Your task to perform on an android device: turn off translation in the chrome app Image 0: 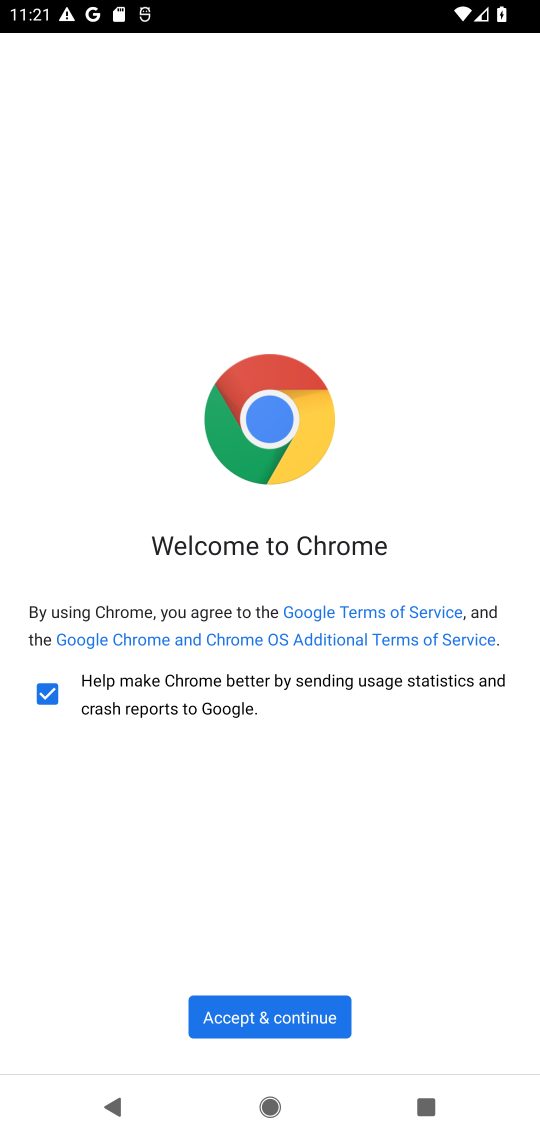
Step 0: click (272, 1006)
Your task to perform on an android device: turn off translation in the chrome app Image 1: 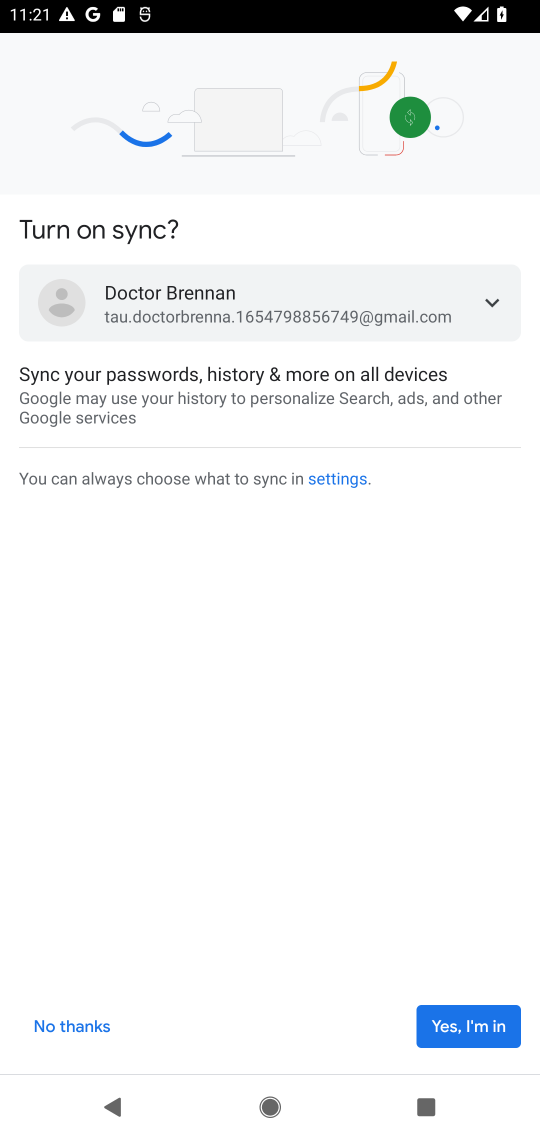
Step 1: press home button
Your task to perform on an android device: turn off translation in the chrome app Image 2: 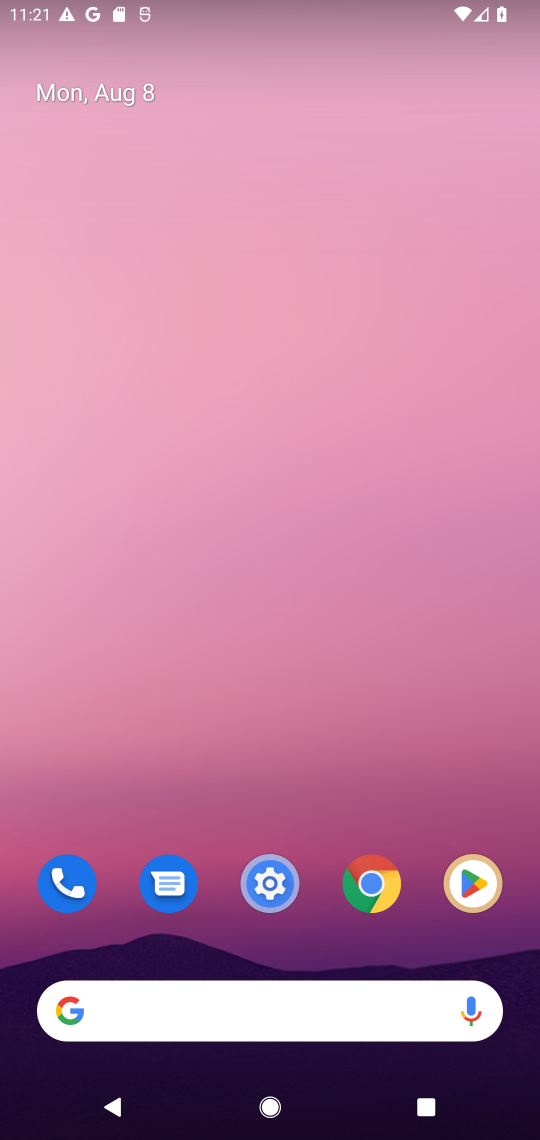
Step 2: click (360, 876)
Your task to perform on an android device: turn off translation in the chrome app Image 3: 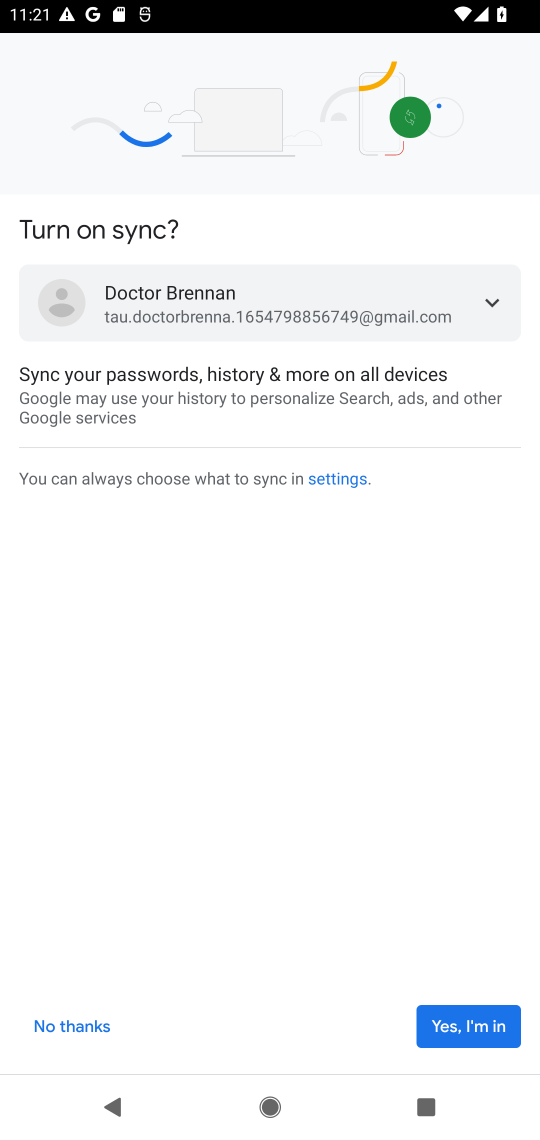
Step 3: click (480, 1031)
Your task to perform on an android device: turn off translation in the chrome app Image 4: 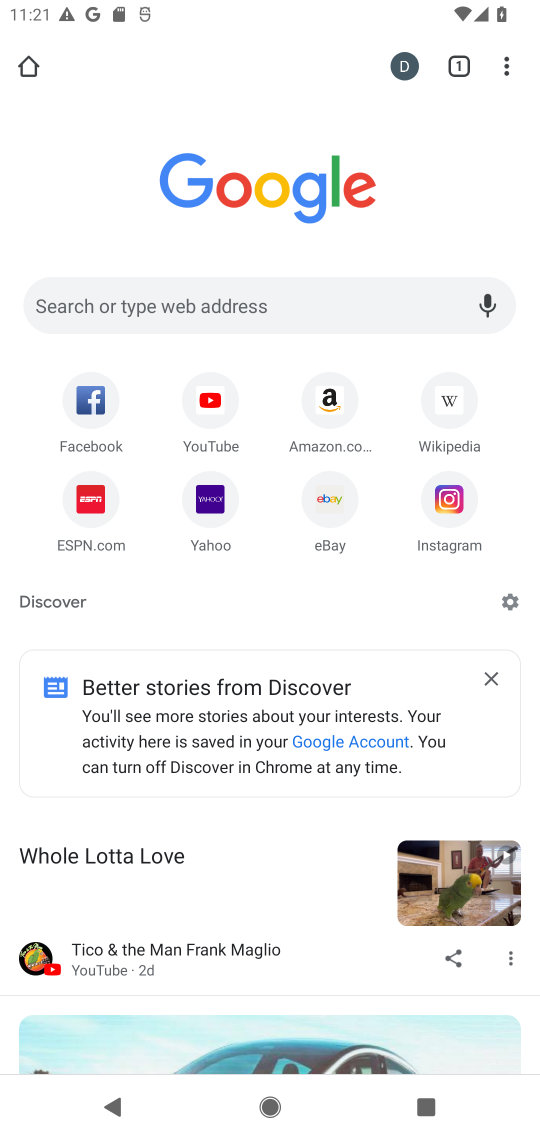
Step 4: click (515, 64)
Your task to perform on an android device: turn off translation in the chrome app Image 5: 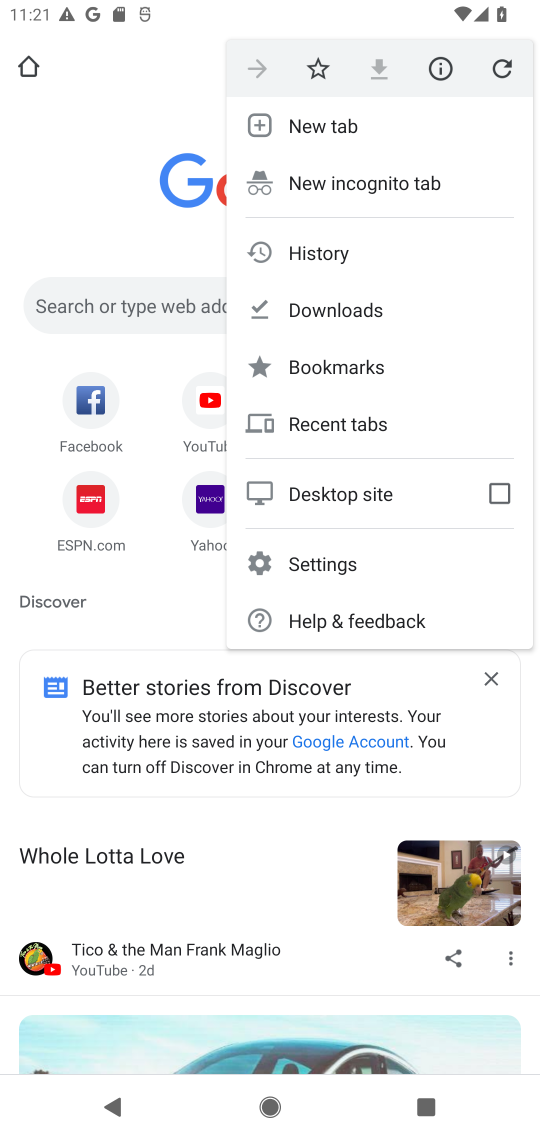
Step 5: click (363, 565)
Your task to perform on an android device: turn off translation in the chrome app Image 6: 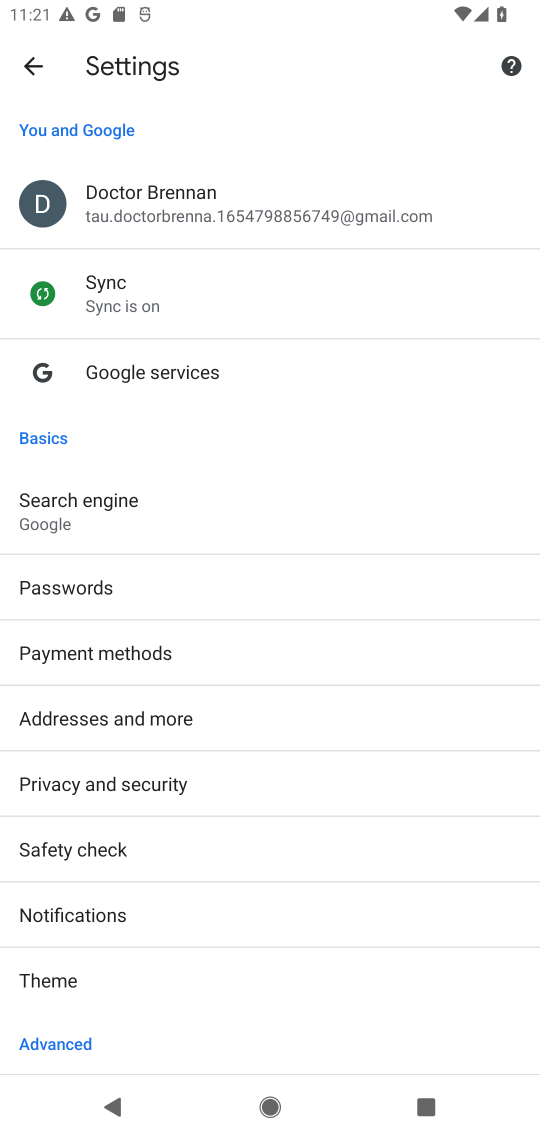
Step 6: drag from (160, 956) to (212, 166)
Your task to perform on an android device: turn off translation in the chrome app Image 7: 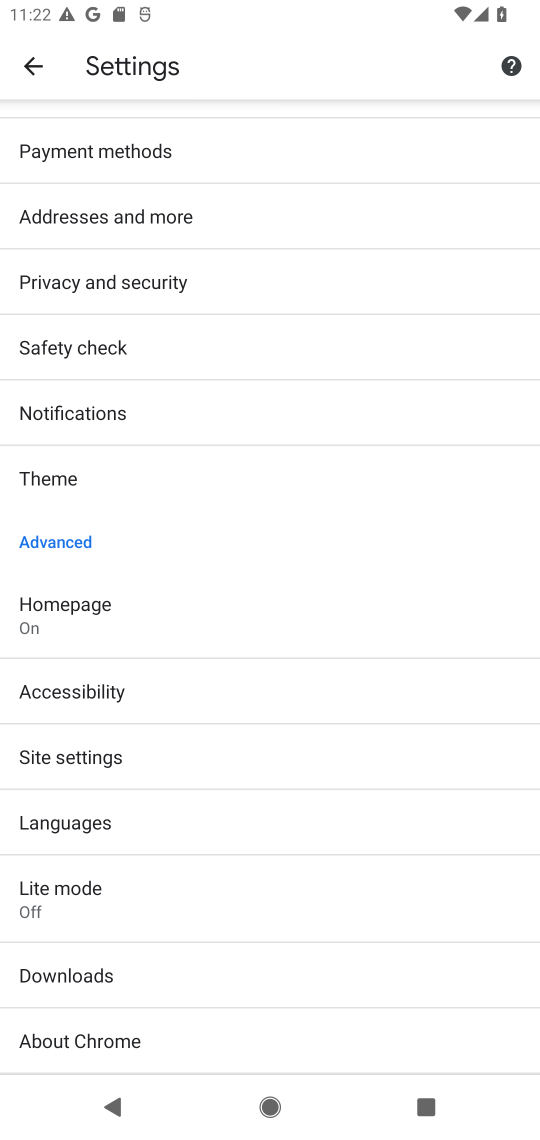
Step 7: click (107, 831)
Your task to perform on an android device: turn off translation in the chrome app Image 8: 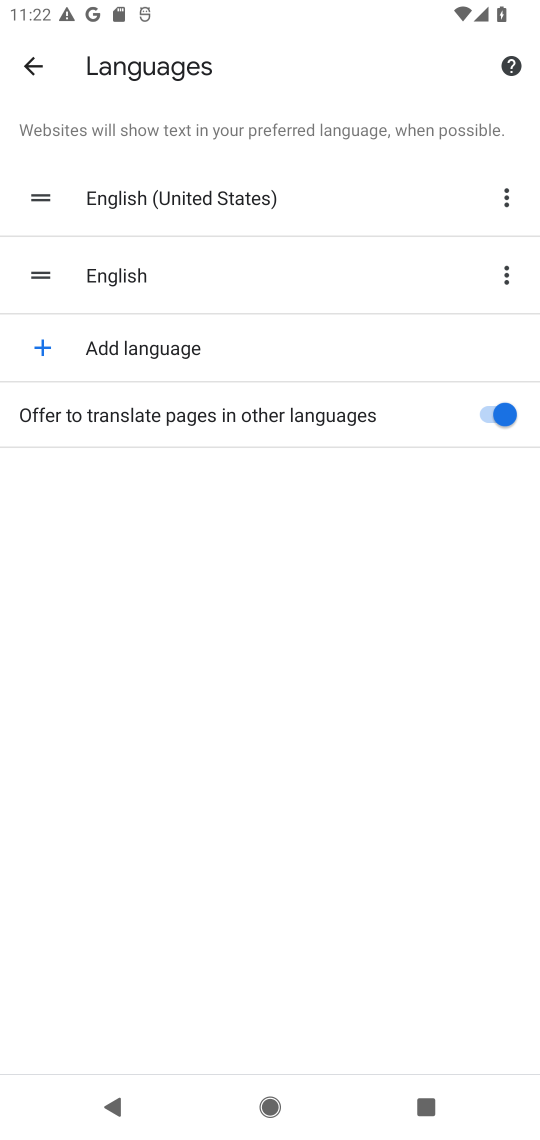
Step 8: click (500, 404)
Your task to perform on an android device: turn off translation in the chrome app Image 9: 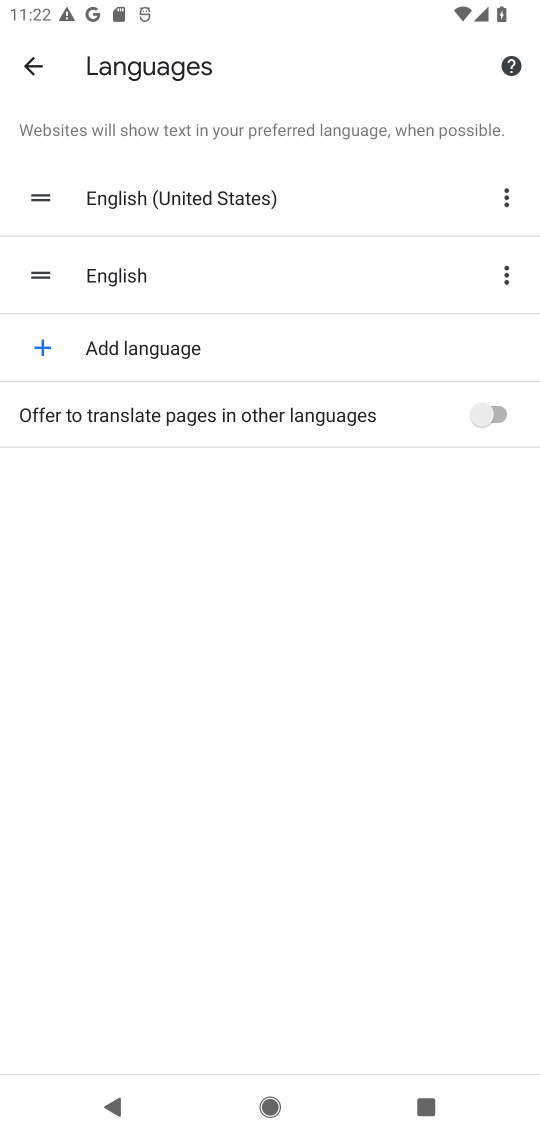
Step 9: task complete